Your task to perform on an android device: add a contact in the contacts app Image 0: 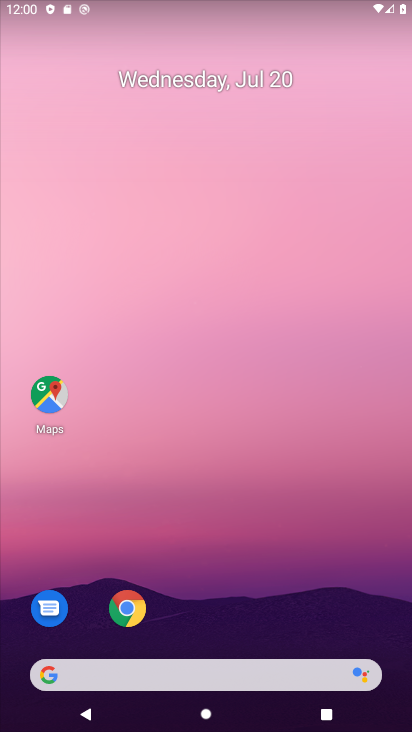
Step 0: drag from (197, 680) to (259, 169)
Your task to perform on an android device: add a contact in the contacts app Image 1: 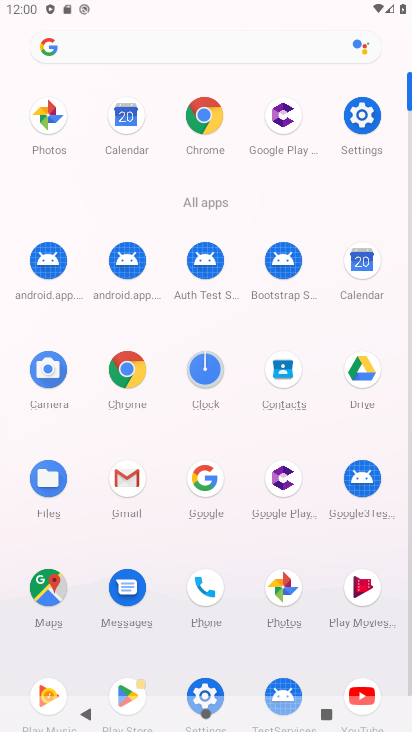
Step 1: click (282, 371)
Your task to perform on an android device: add a contact in the contacts app Image 2: 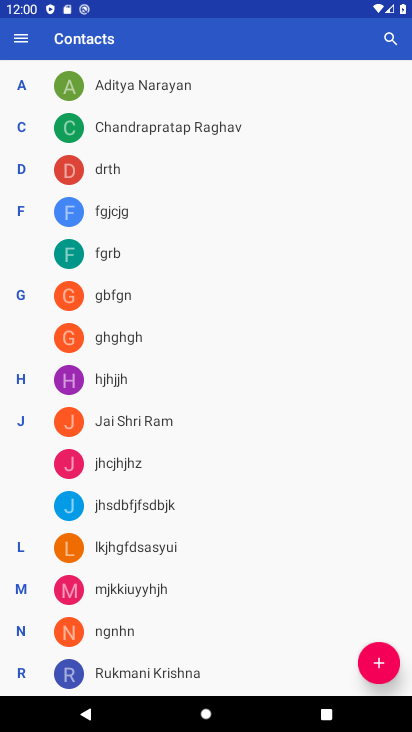
Step 2: click (381, 666)
Your task to perform on an android device: add a contact in the contacts app Image 3: 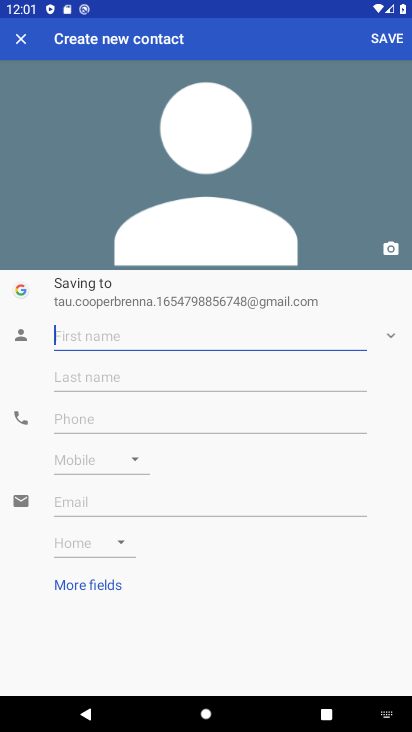
Step 3: type "Stephen"
Your task to perform on an android device: add a contact in the contacts app Image 4: 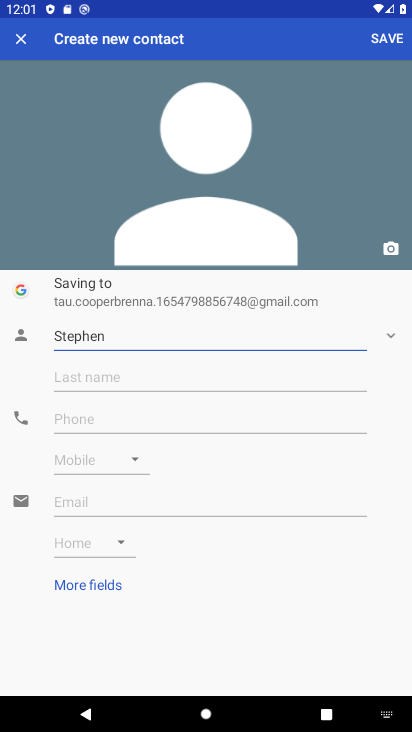
Step 4: click (300, 382)
Your task to perform on an android device: add a contact in the contacts app Image 5: 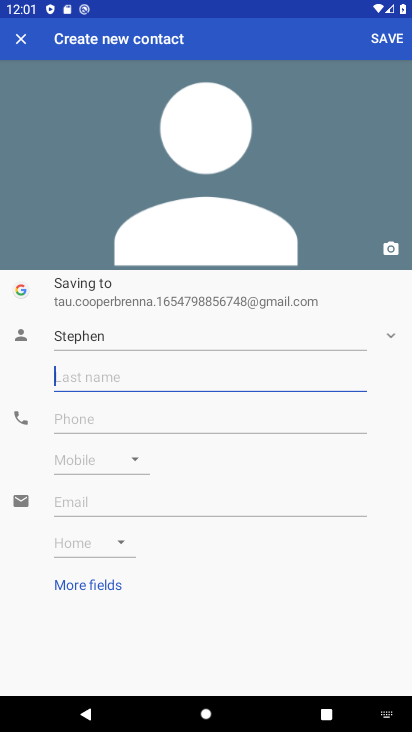
Step 5: type "Fleming"
Your task to perform on an android device: add a contact in the contacts app Image 6: 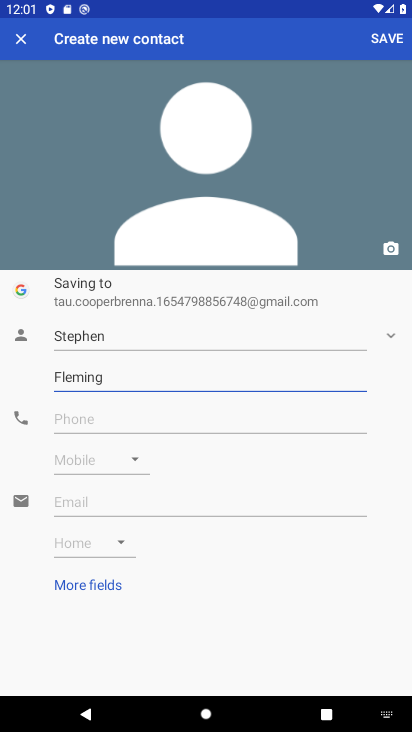
Step 6: click (185, 428)
Your task to perform on an android device: add a contact in the contacts app Image 7: 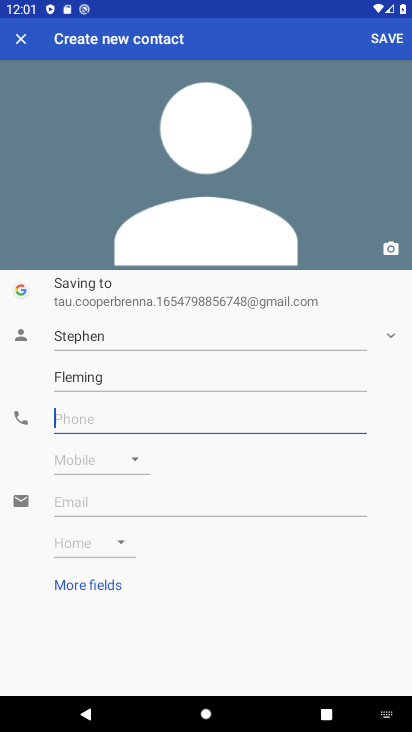
Step 7: type "0987612438"
Your task to perform on an android device: add a contact in the contacts app Image 8: 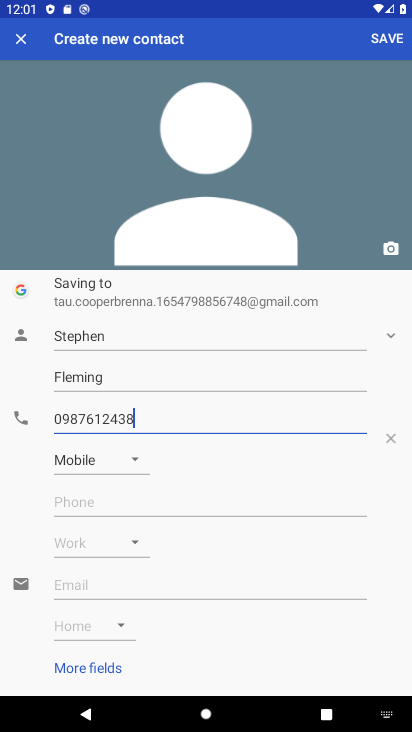
Step 8: click (393, 38)
Your task to perform on an android device: add a contact in the contacts app Image 9: 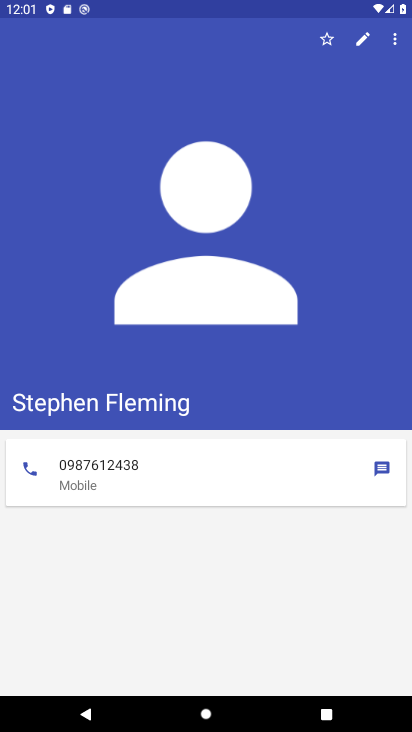
Step 9: task complete